Your task to perform on an android device: toggle wifi Image 0: 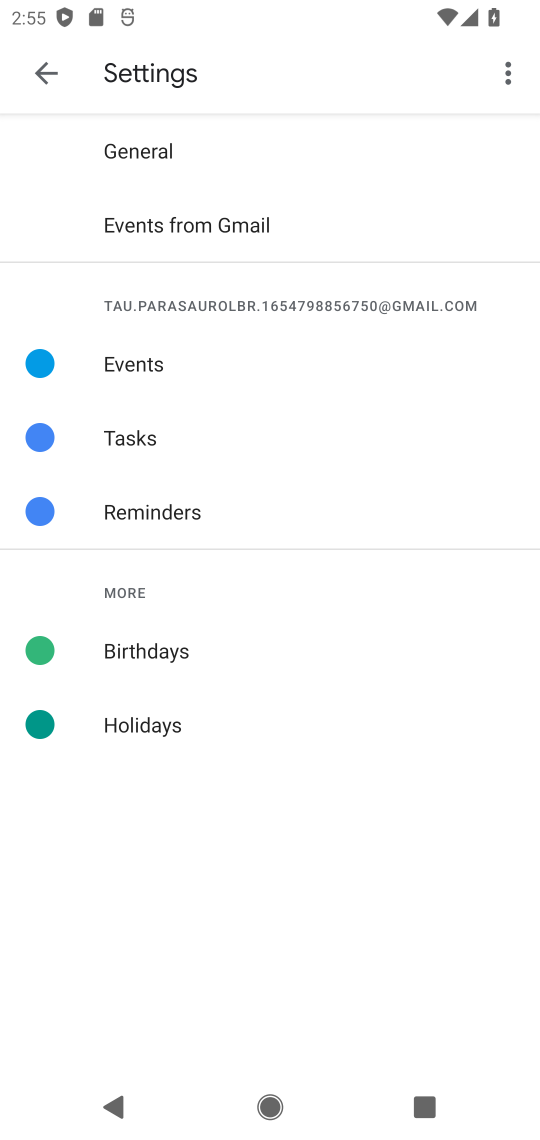
Step 0: press home button
Your task to perform on an android device: toggle wifi Image 1: 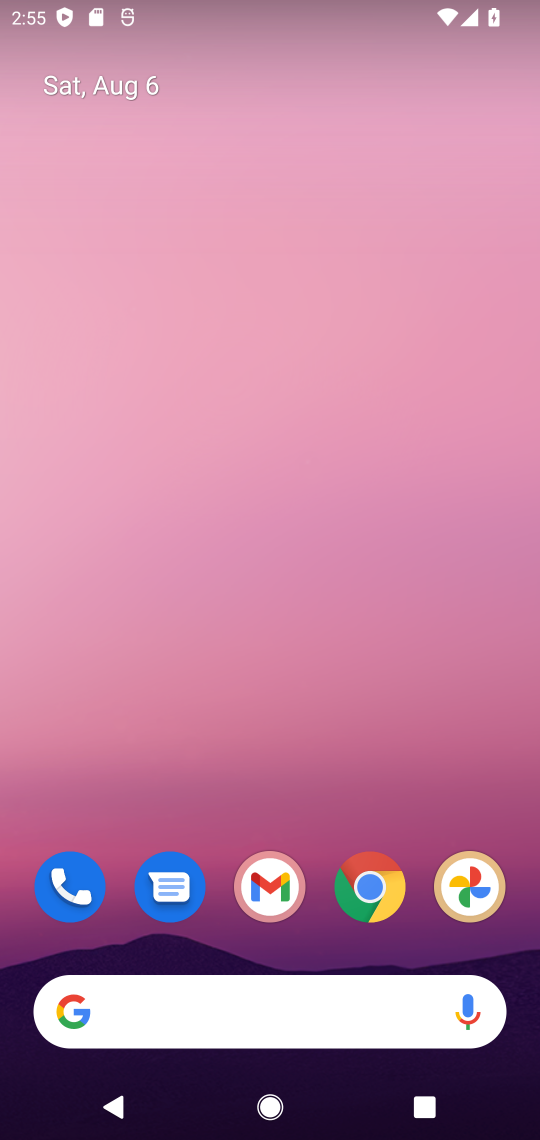
Step 1: drag from (322, 787) to (310, 276)
Your task to perform on an android device: toggle wifi Image 2: 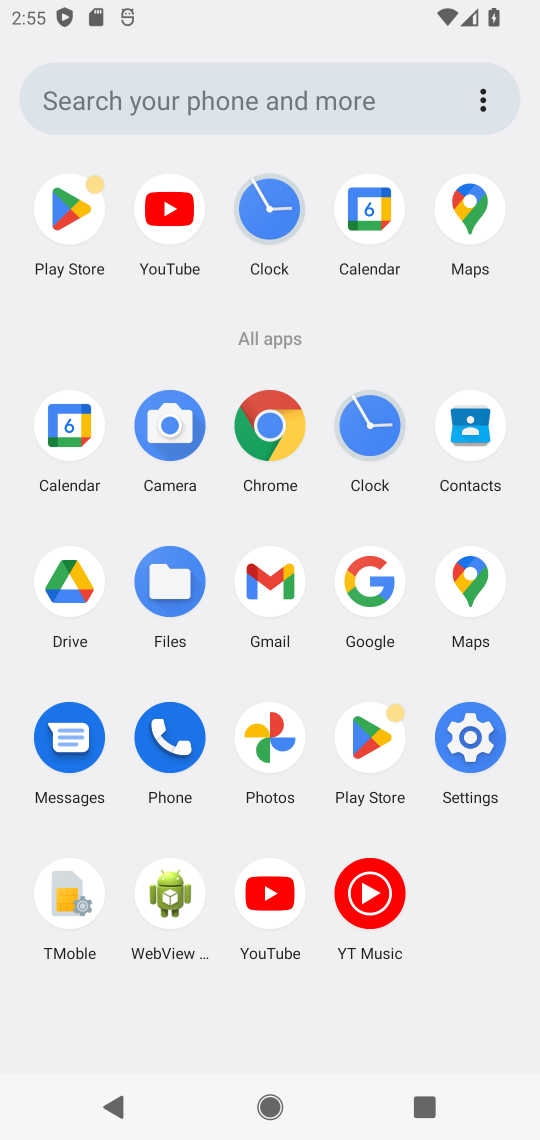
Step 2: click (474, 733)
Your task to perform on an android device: toggle wifi Image 3: 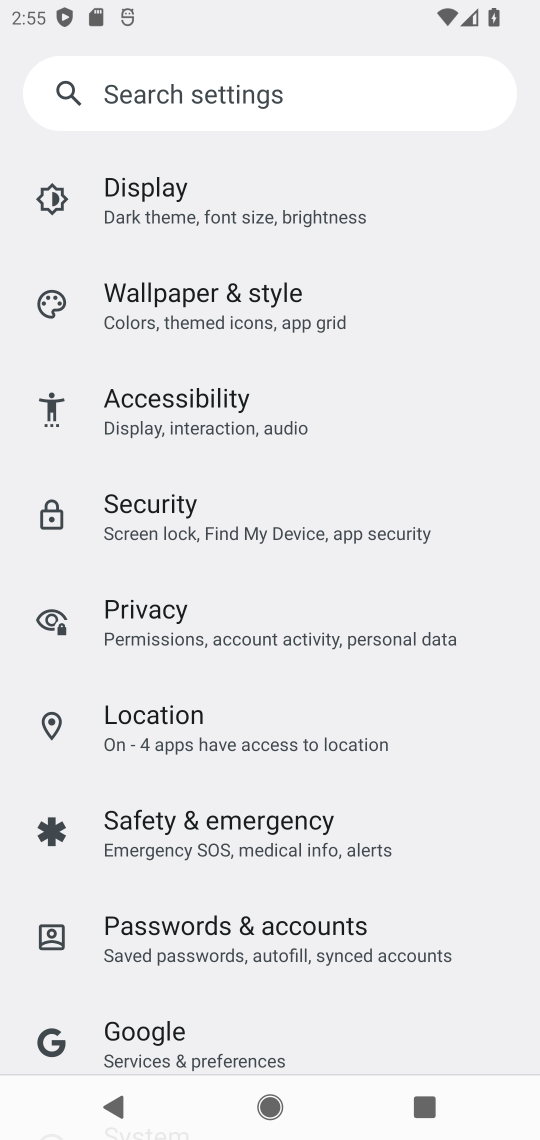
Step 3: drag from (502, 511) to (492, 653)
Your task to perform on an android device: toggle wifi Image 4: 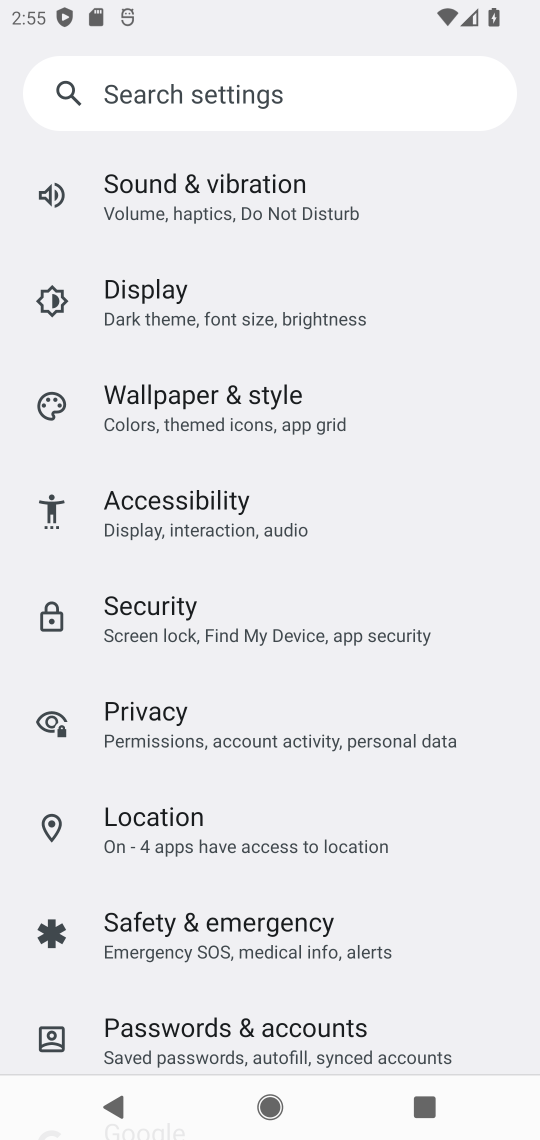
Step 4: drag from (483, 437) to (486, 608)
Your task to perform on an android device: toggle wifi Image 5: 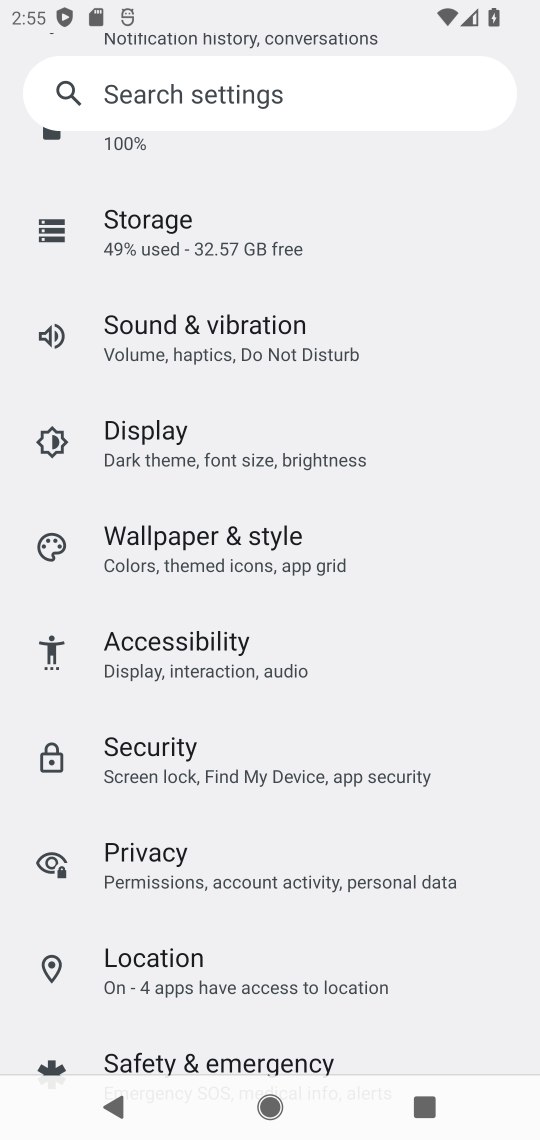
Step 5: drag from (477, 365) to (475, 551)
Your task to perform on an android device: toggle wifi Image 6: 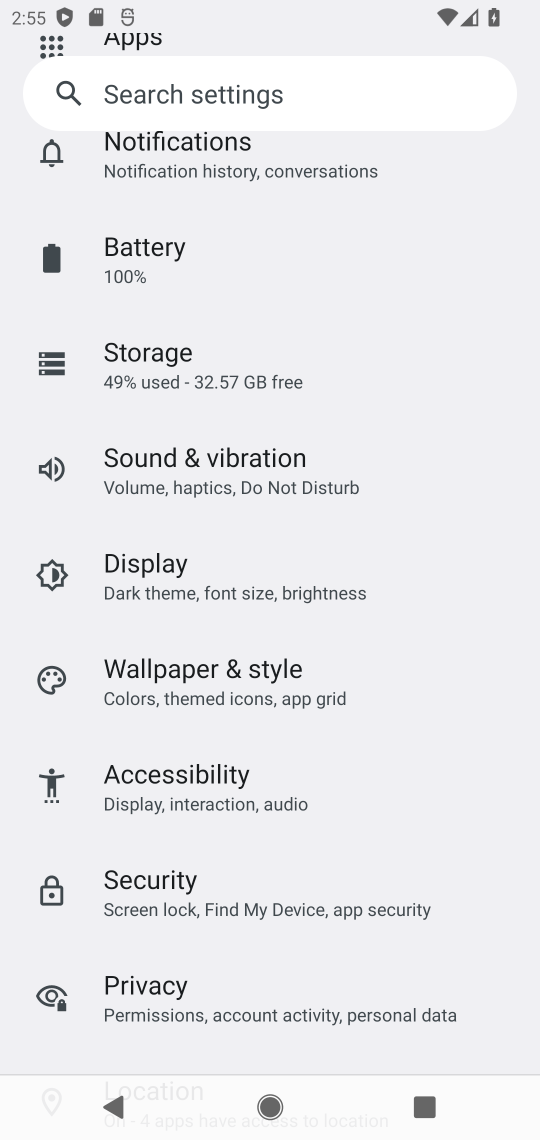
Step 6: drag from (477, 337) to (478, 542)
Your task to perform on an android device: toggle wifi Image 7: 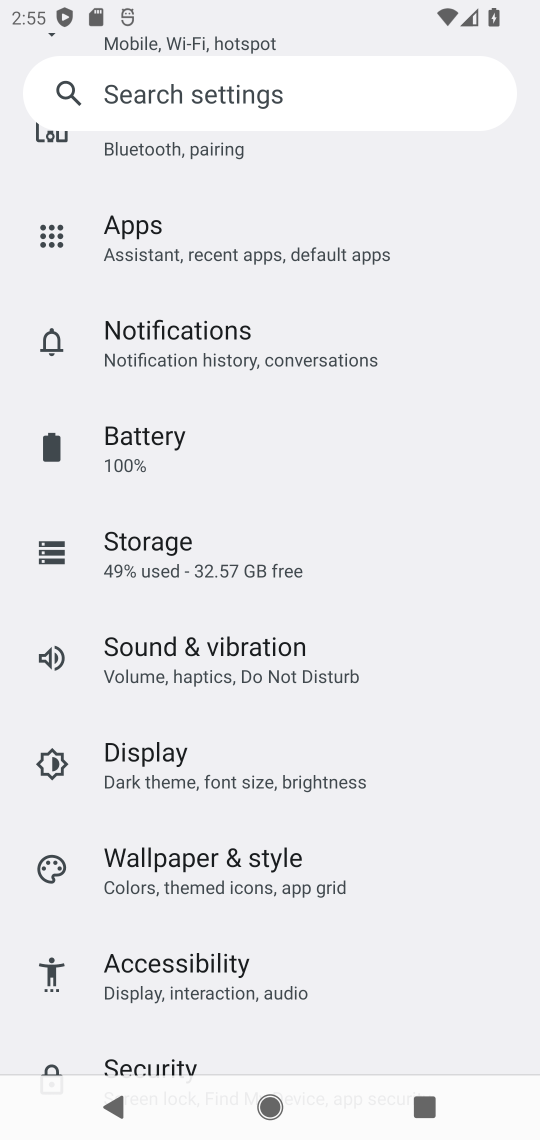
Step 7: drag from (493, 363) to (496, 563)
Your task to perform on an android device: toggle wifi Image 8: 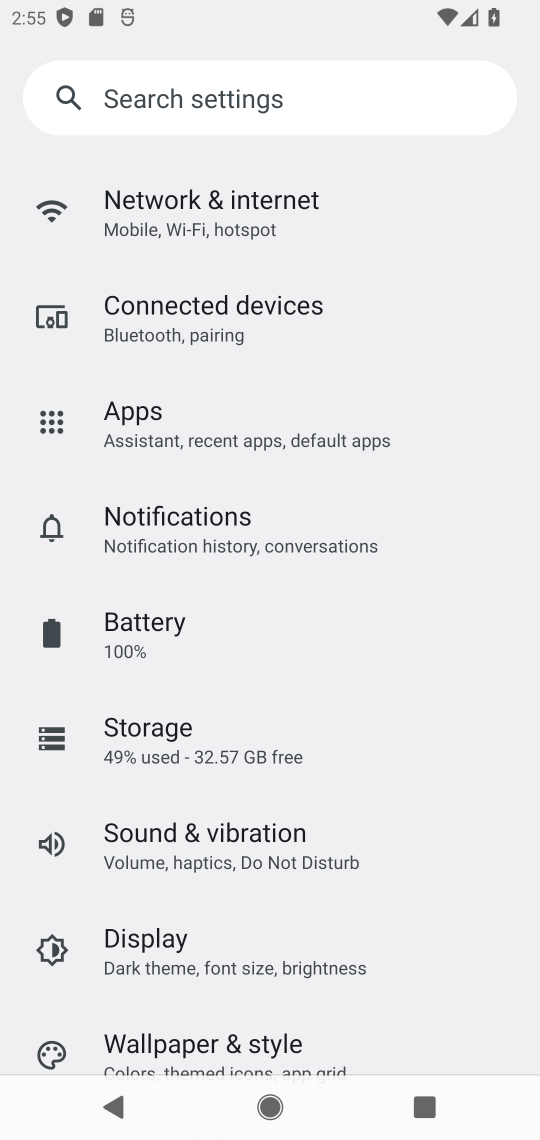
Step 8: drag from (490, 371) to (484, 536)
Your task to perform on an android device: toggle wifi Image 9: 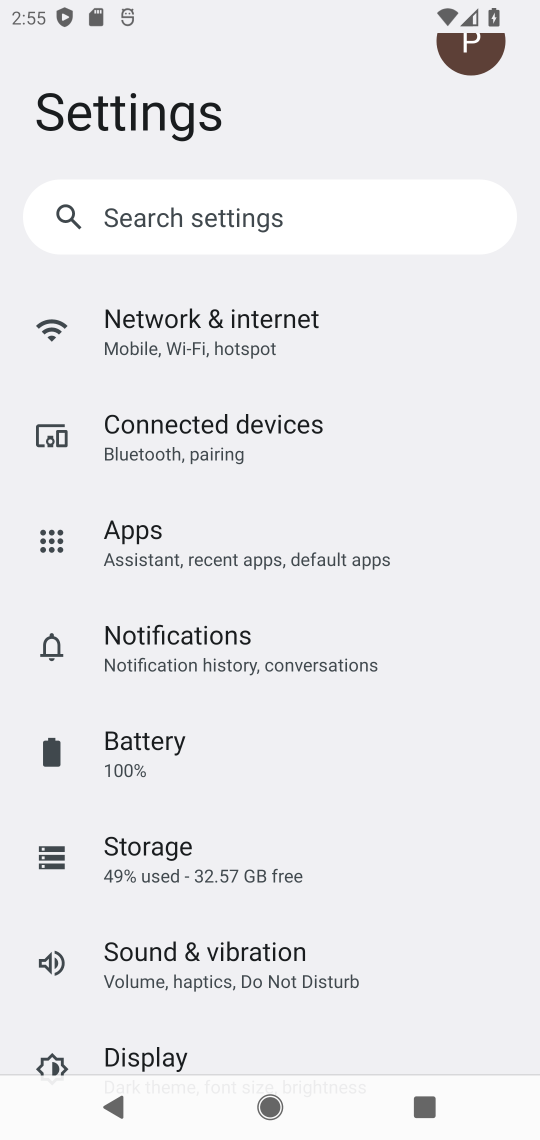
Step 9: drag from (479, 337) to (476, 539)
Your task to perform on an android device: toggle wifi Image 10: 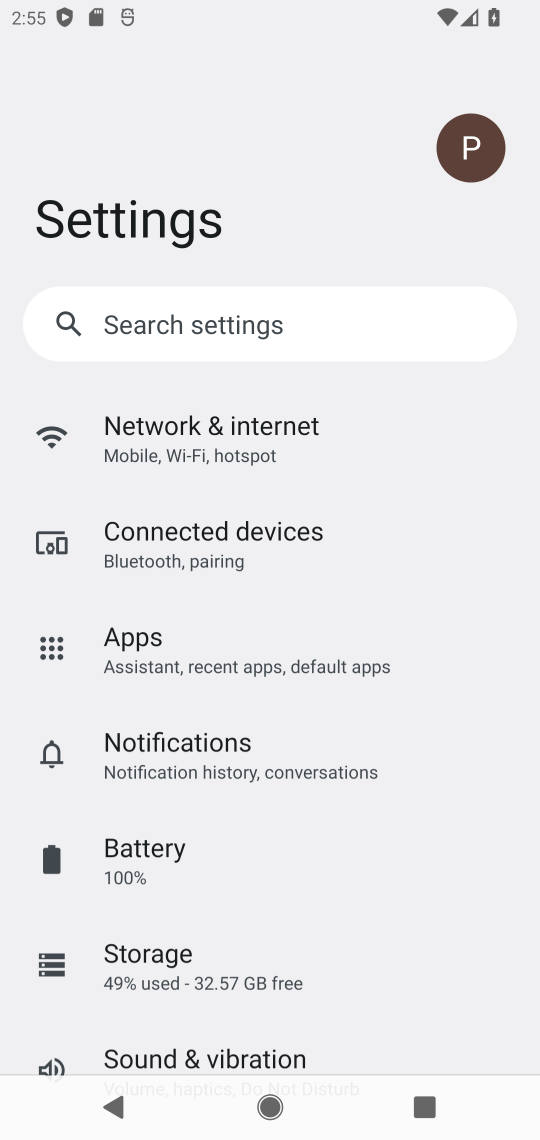
Step 10: drag from (462, 287) to (458, 555)
Your task to perform on an android device: toggle wifi Image 11: 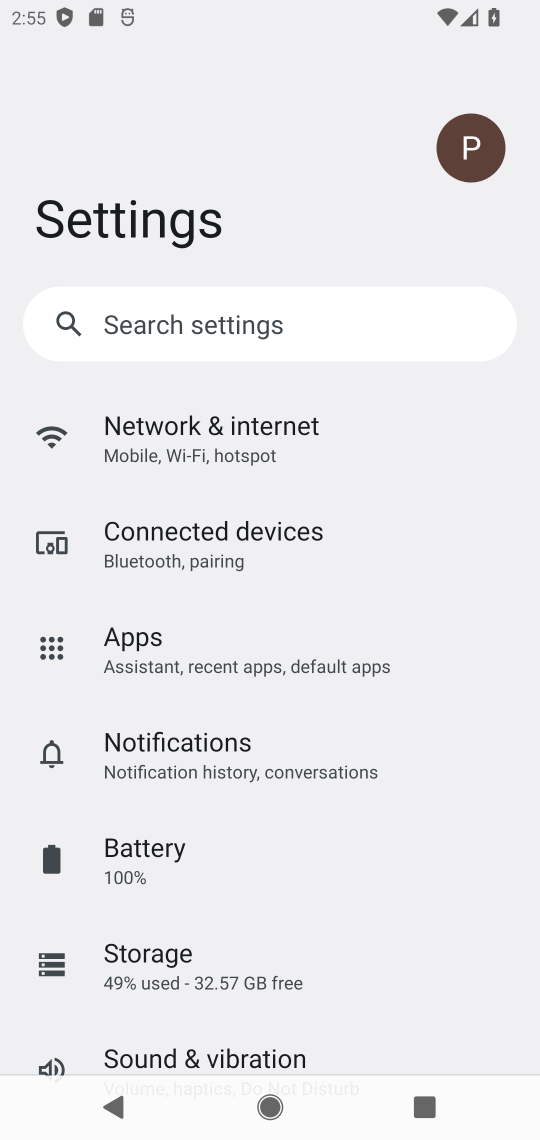
Step 11: click (321, 446)
Your task to perform on an android device: toggle wifi Image 12: 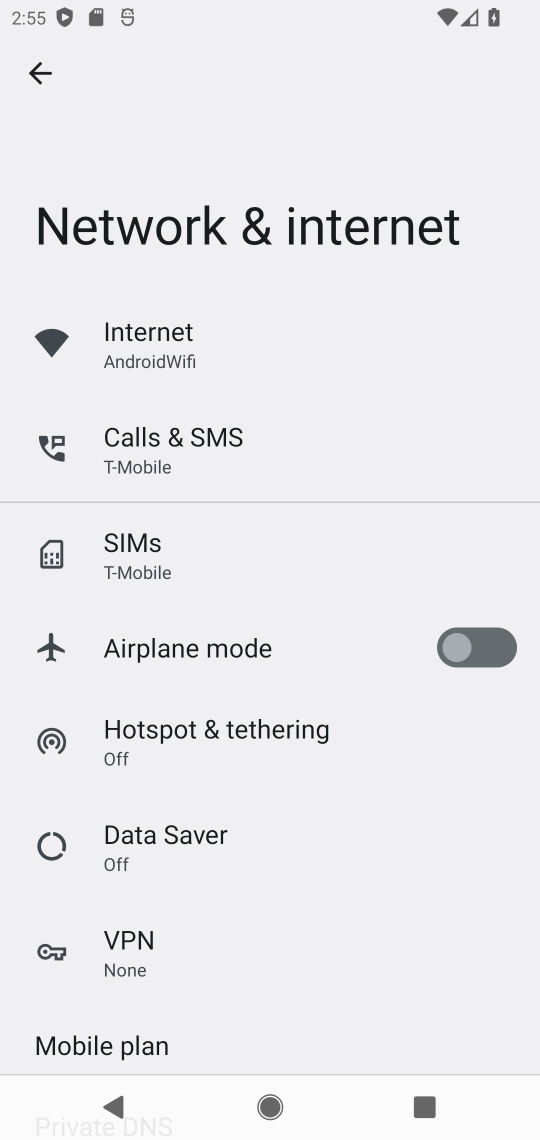
Step 12: click (227, 336)
Your task to perform on an android device: toggle wifi Image 13: 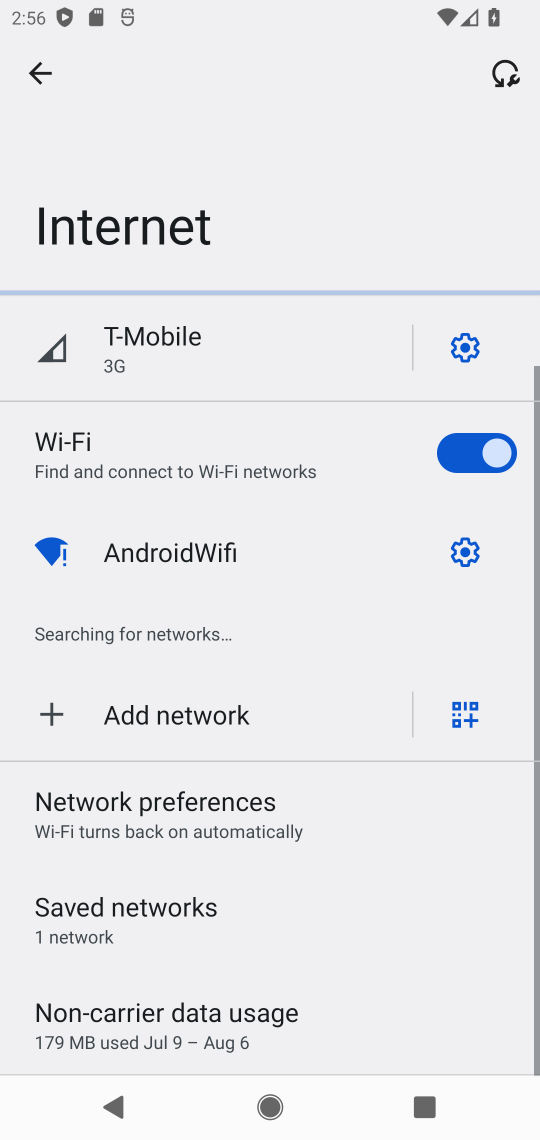
Step 13: click (481, 454)
Your task to perform on an android device: toggle wifi Image 14: 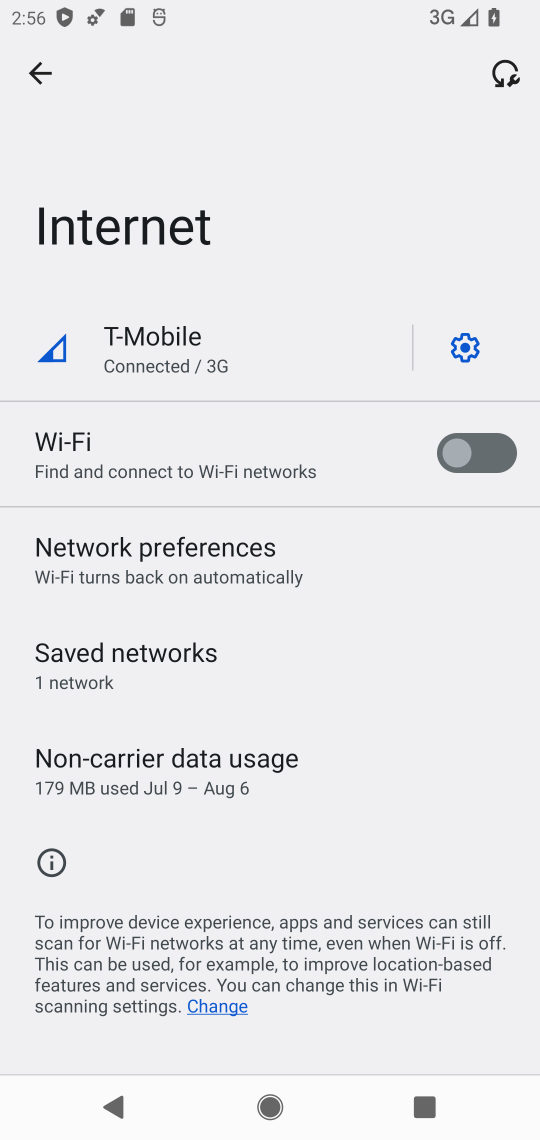
Step 14: task complete